Your task to perform on an android device: change the clock style Image 0: 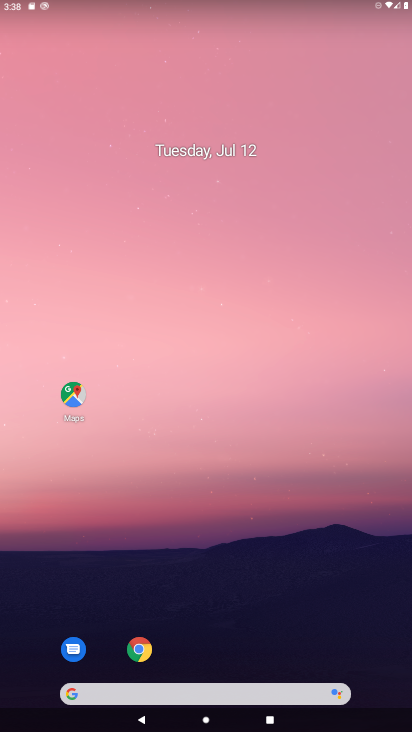
Step 0: drag from (271, 635) to (268, 308)
Your task to perform on an android device: change the clock style Image 1: 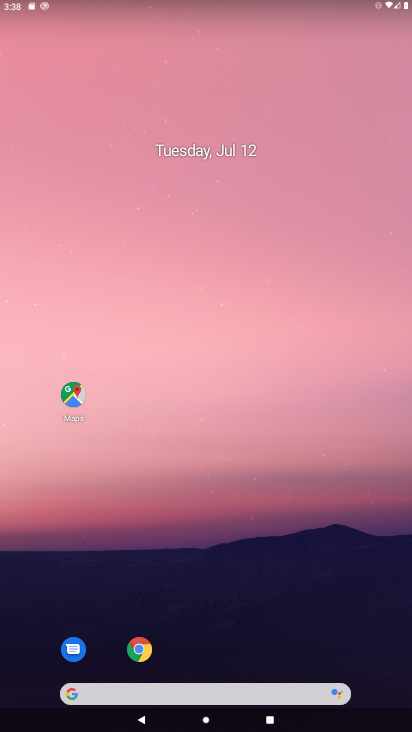
Step 1: drag from (259, 644) to (262, 262)
Your task to perform on an android device: change the clock style Image 2: 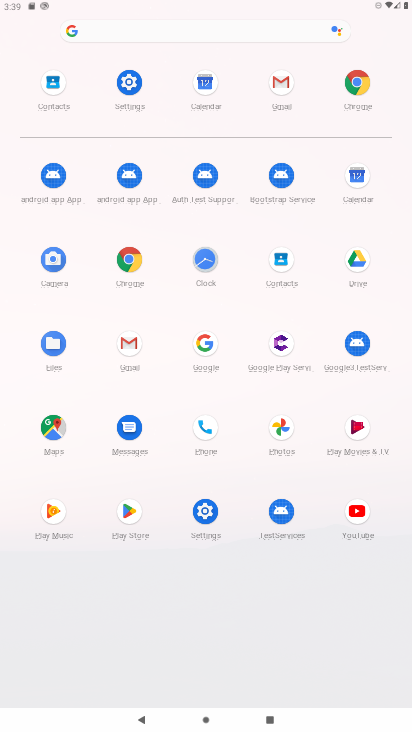
Step 2: click (203, 272)
Your task to perform on an android device: change the clock style Image 3: 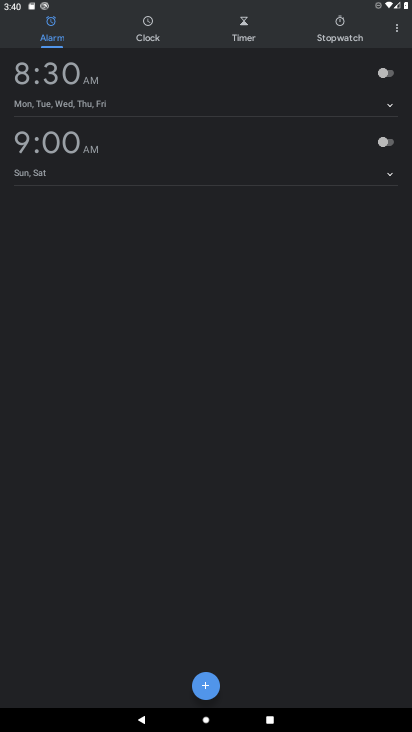
Step 3: task complete